Your task to perform on an android device: open chrome privacy settings Image 0: 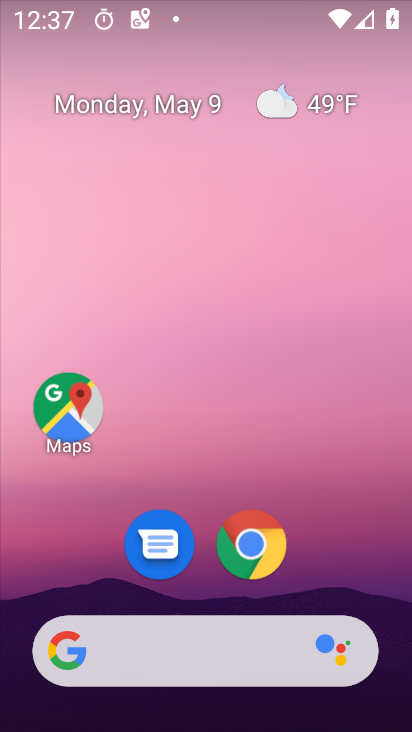
Step 0: drag from (286, 643) to (283, 97)
Your task to perform on an android device: open chrome privacy settings Image 1: 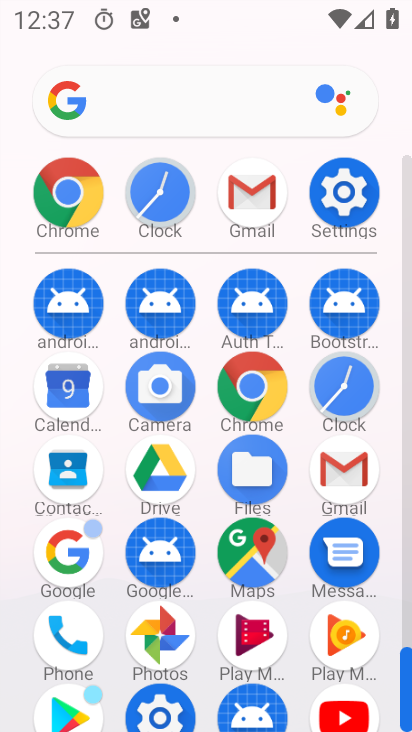
Step 1: click (337, 210)
Your task to perform on an android device: open chrome privacy settings Image 2: 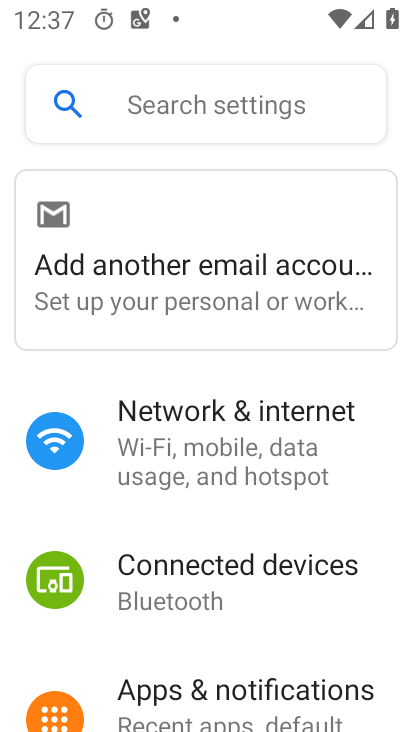
Step 2: press home button
Your task to perform on an android device: open chrome privacy settings Image 3: 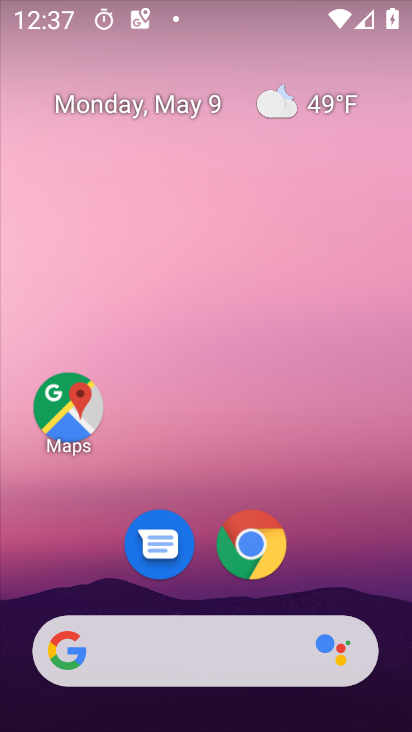
Step 3: drag from (272, 619) to (125, 0)
Your task to perform on an android device: open chrome privacy settings Image 4: 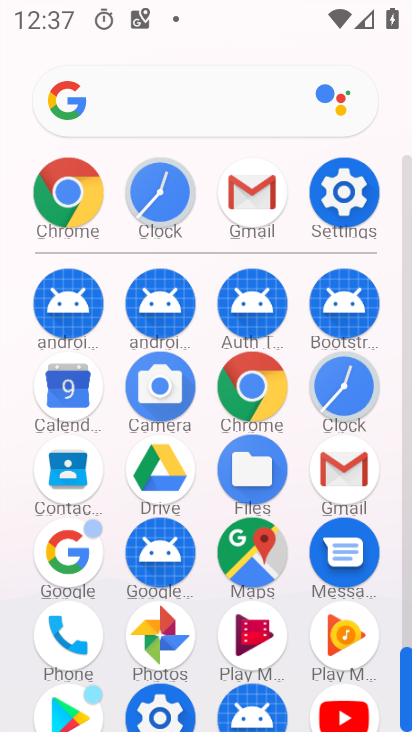
Step 4: click (253, 389)
Your task to perform on an android device: open chrome privacy settings Image 5: 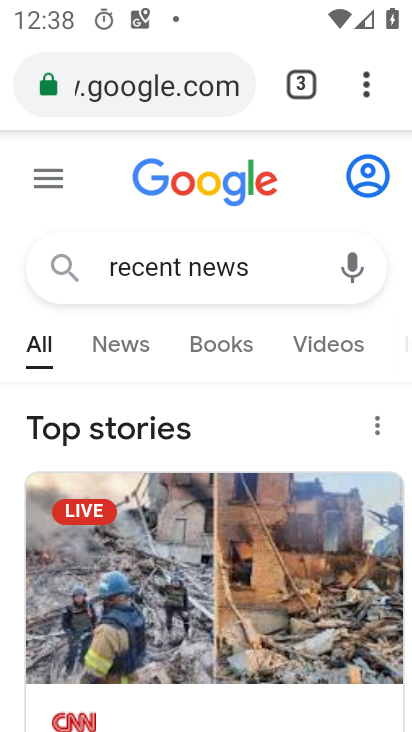
Step 5: drag from (366, 67) to (108, 592)
Your task to perform on an android device: open chrome privacy settings Image 6: 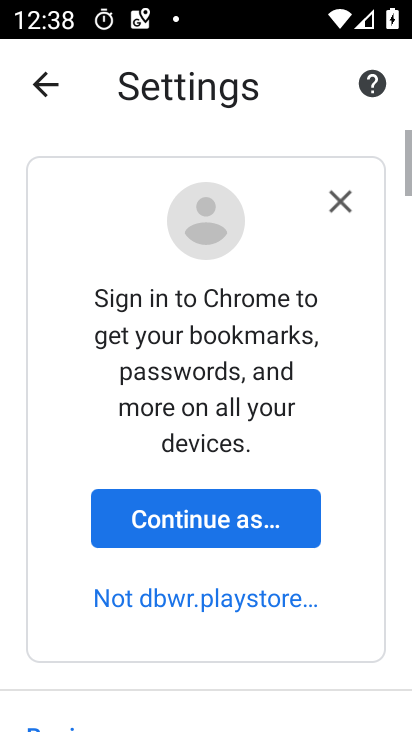
Step 6: drag from (245, 626) to (217, 80)
Your task to perform on an android device: open chrome privacy settings Image 7: 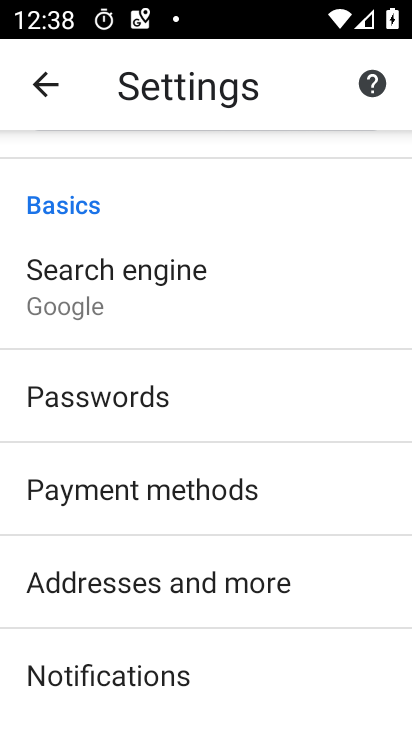
Step 7: drag from (238, 676) to (255, 118)
Your task to perform on an android device: open chrome privacy settings Image 8: 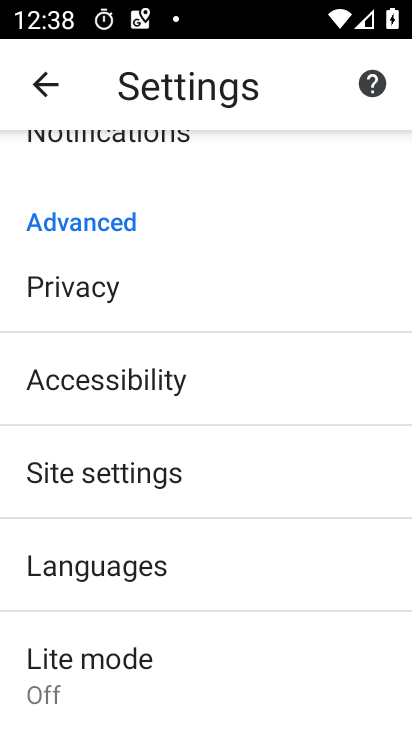
Step 8: click (177, 479)
Your task to perform on an android device: open chrome privacy settings Image 9: 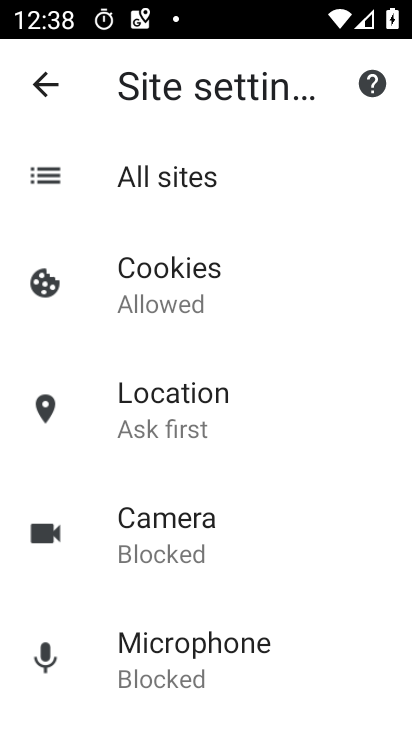
Step 9: drag from (206, 683) to (201, 286)
Your task to perform on an android device: open chrome privacy settings Image 10: 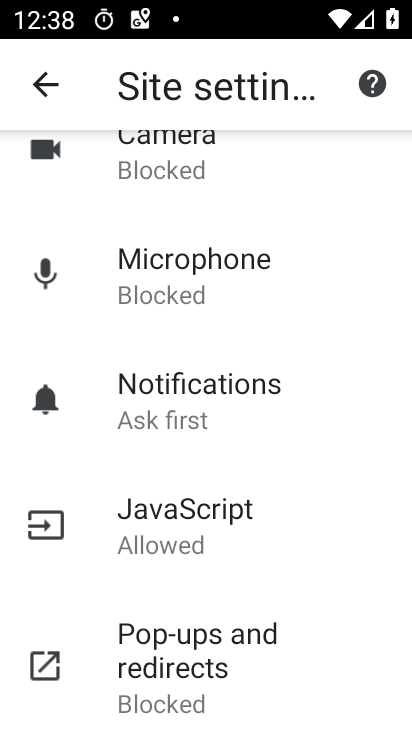
Step 10: press back button
Your task to perform on an android device: open chrome privacy settings Image 11: 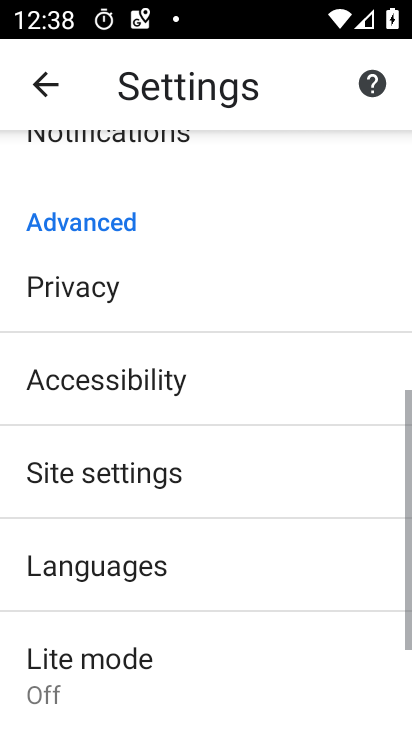
Step 11: click (148, 308)
Your task to perform on an android device: open chrome privacy settings Image 12: 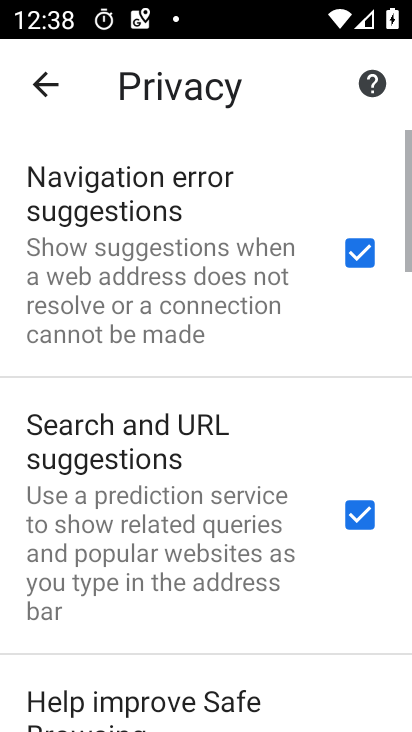
Step 12: task complete